Your task to perform on an android device: turn notification dots on Image 0: 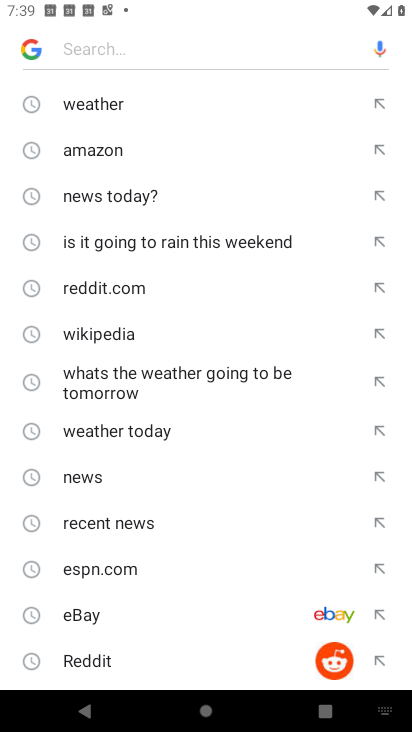
Step 0: press home button
Your task to perform on an android device: turn notification dots on Image 1: 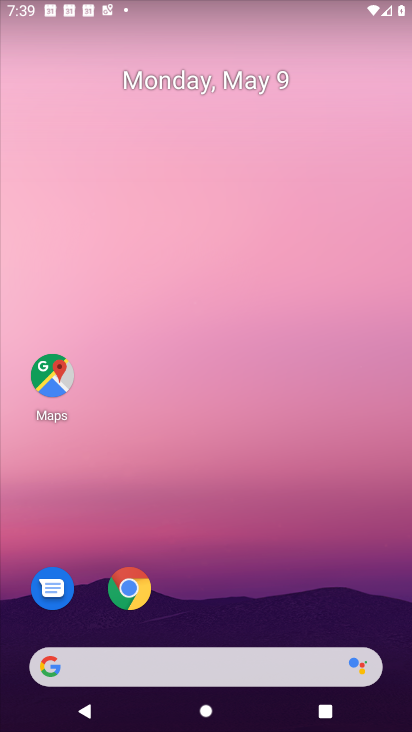
Step 1: drag from (176, 664) to (345, 128)
Your task to perform on an android device: turn notification dots on Image 2: 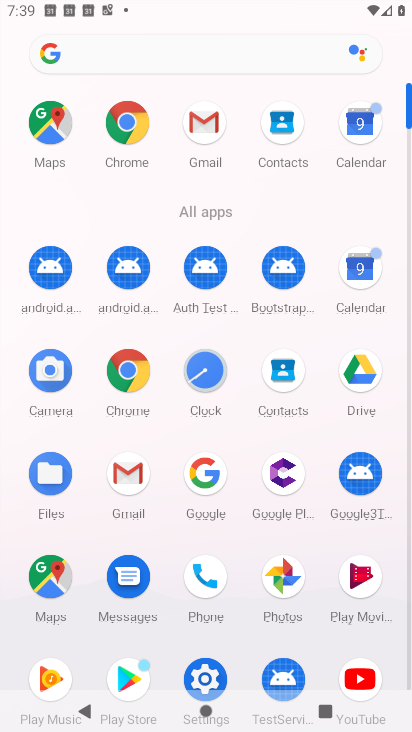
Step 2: click (199, 675)
Your task to perform on an android device: turn notification dots on Image 3: 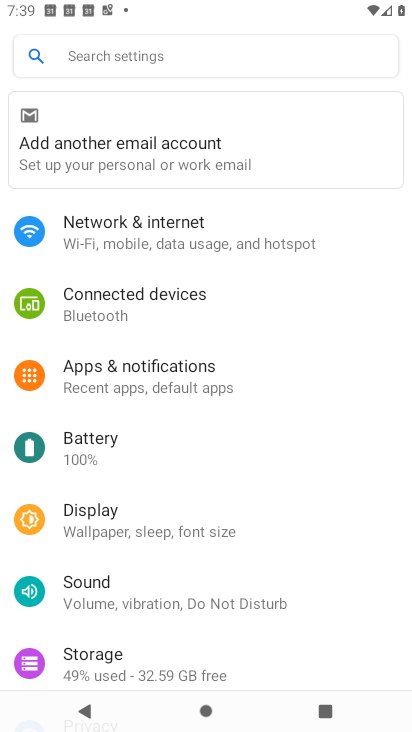
Step 3: click (159, 376)
Your task to perform on an android device: turn notification dots on Image 4: 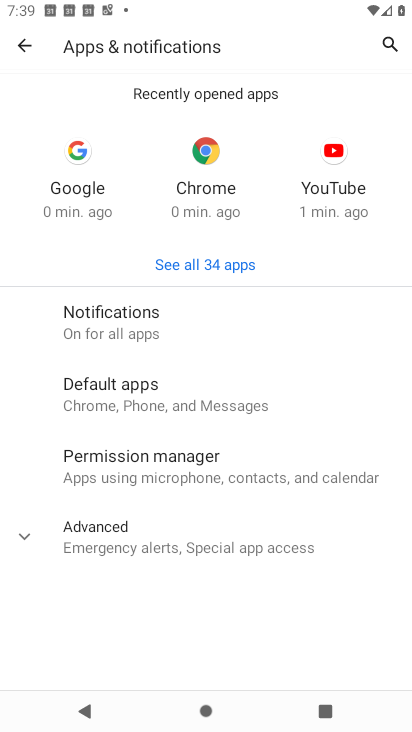
Step 4: click (114, 317)
Your task to perform on an android device: turn notification dots on Image 5: 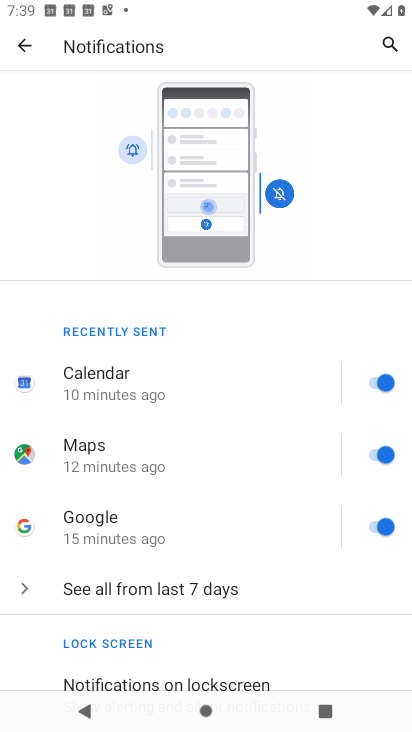
Step 5: drag from (184, 575) to (333, 143)
Your task to perform on an android device: turn notification dots on Image 6: 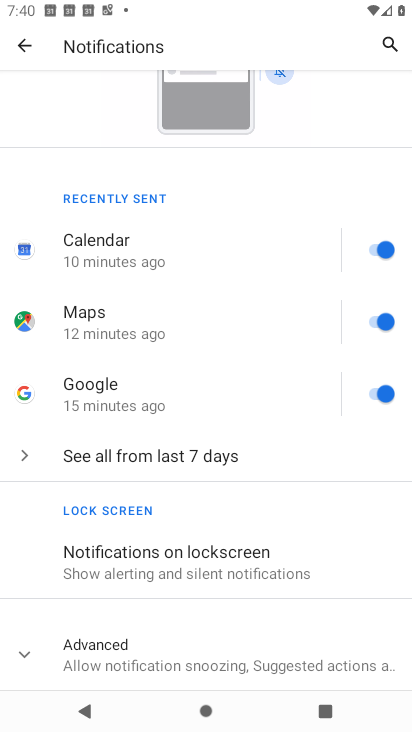
Step 6: click (145, 650)
Your task to perform on an android device: turn notification dots on Image 7: 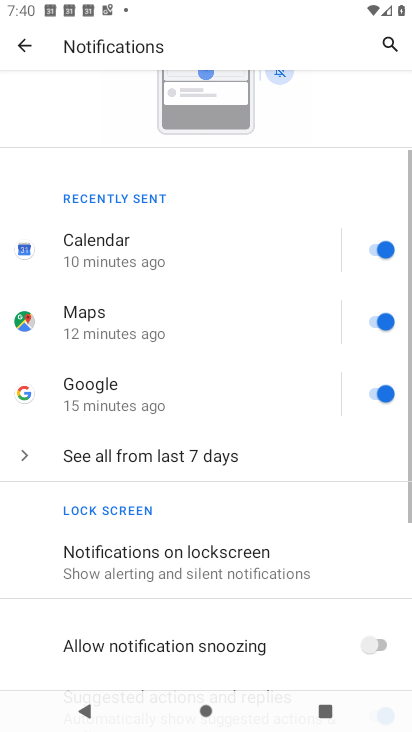
Step 7: task complete